Your task to perform on an android device: Go to Wikipedia Image 0: 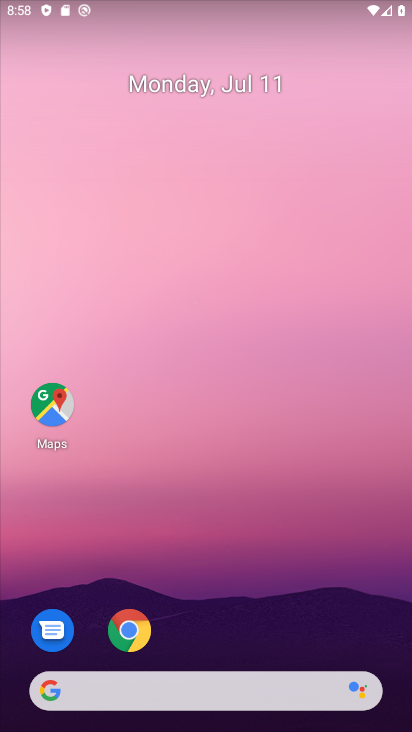
Step 0: drag from (249, 708) to (300, 207)
Your task to perform on an android device: Go to Wikipedia Image 1: 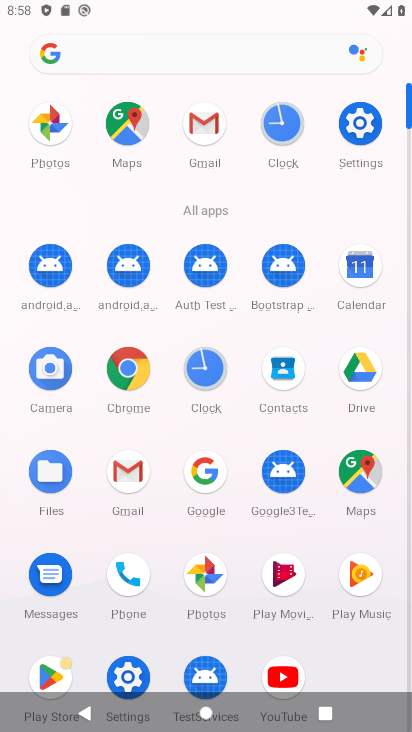
Step 1: click (118, 374)
Your task to perform on an android device: Go to Wikipedia Image 2: 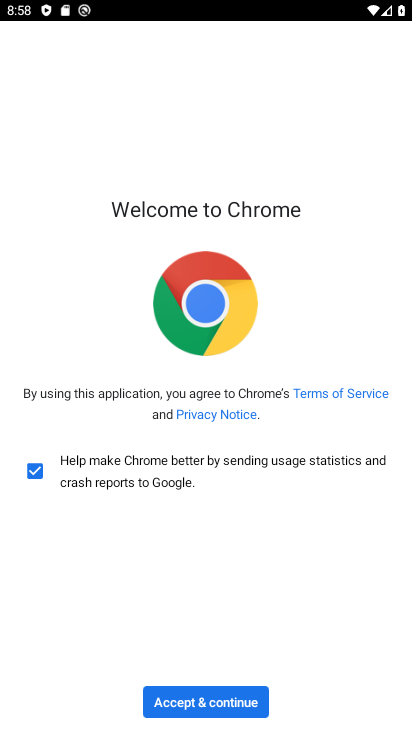
Step 2: click (213, 683)
Your task to perform on an android device: Go to Wikipedia Image 3: 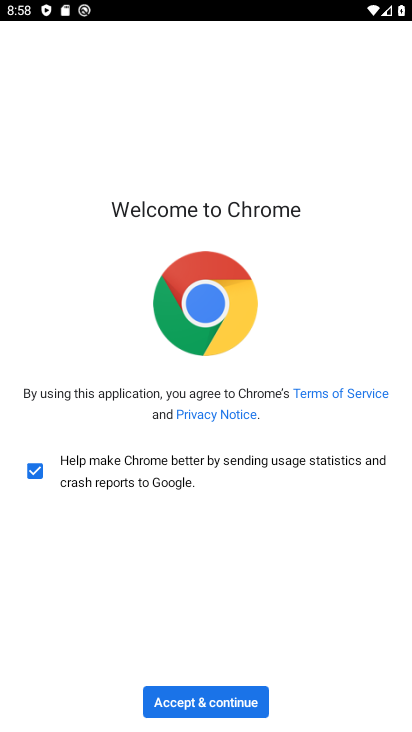
Step 3: click (216, 701)
Your task to perform on an android device: Go to Wikipedia Image 4: 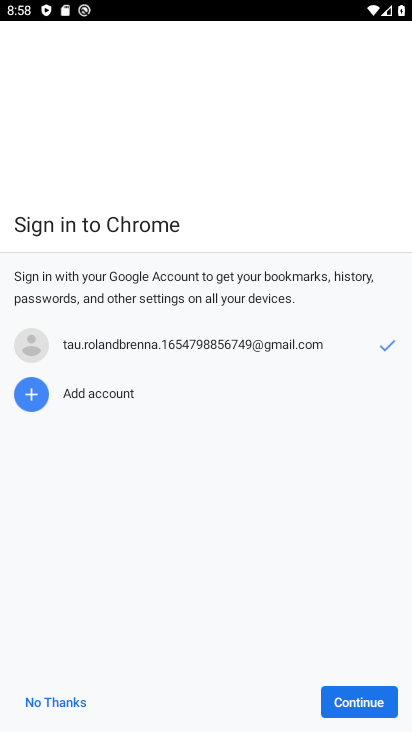
Step 4: click (74, 701)
Your task to perform on an android device: Go to Wikipedia Image 5: 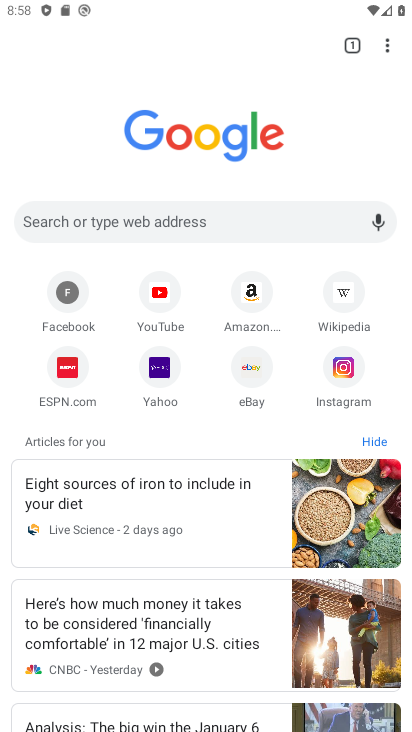
Step 5: click (352, 303)
Your task to perform on an android device: Go to Wikipedia Image 6: 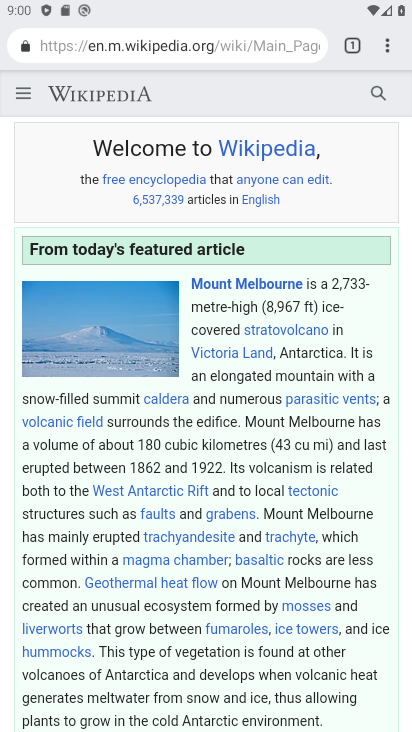
Step 6: task complete